Your task to perform on an android device: Open internet settings Image 0: 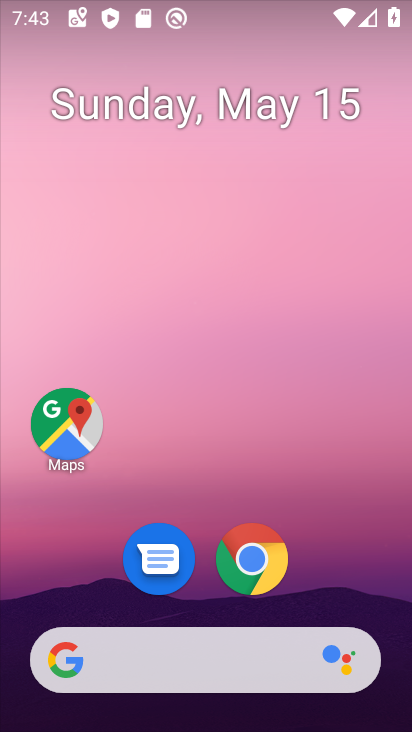
Step 0: drag from (350, 592) to (285, 60)
Your task to perform on an android device: Open internet settings Image 1: 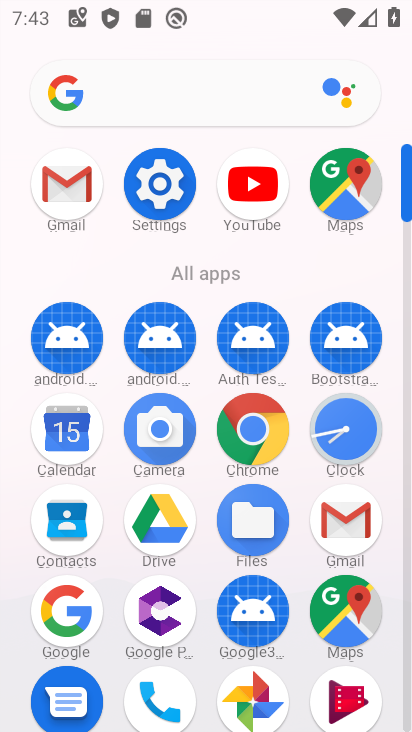
Step 1: click (172, 173)
Your task to perform on an android device: Open internet settings Image 2: 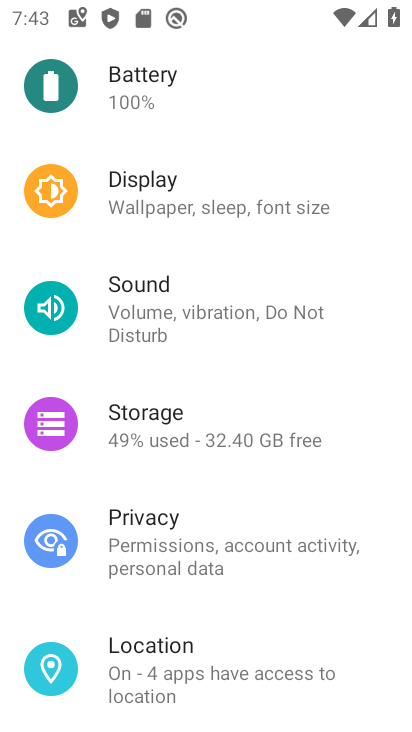
Step 2: drag from (172, 173) to (196, 718)
Your task to perform on an android device: Open internet settings Image 3: 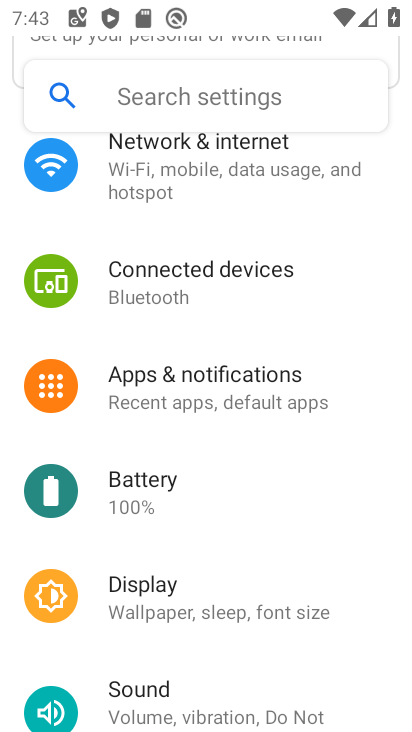
Step 3: click (245, 176)
Your task to perform on an android device: Open internet settings Image 4: 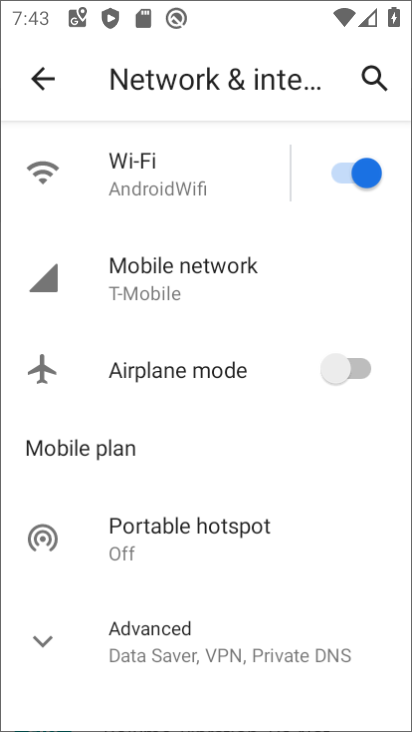
Step 4: task complete